Your task to perform on an android device: Clear the shopping cart on target.com. Search for "macbook pro" on target.com, select the first entry, and add it to the cart. Image 0: 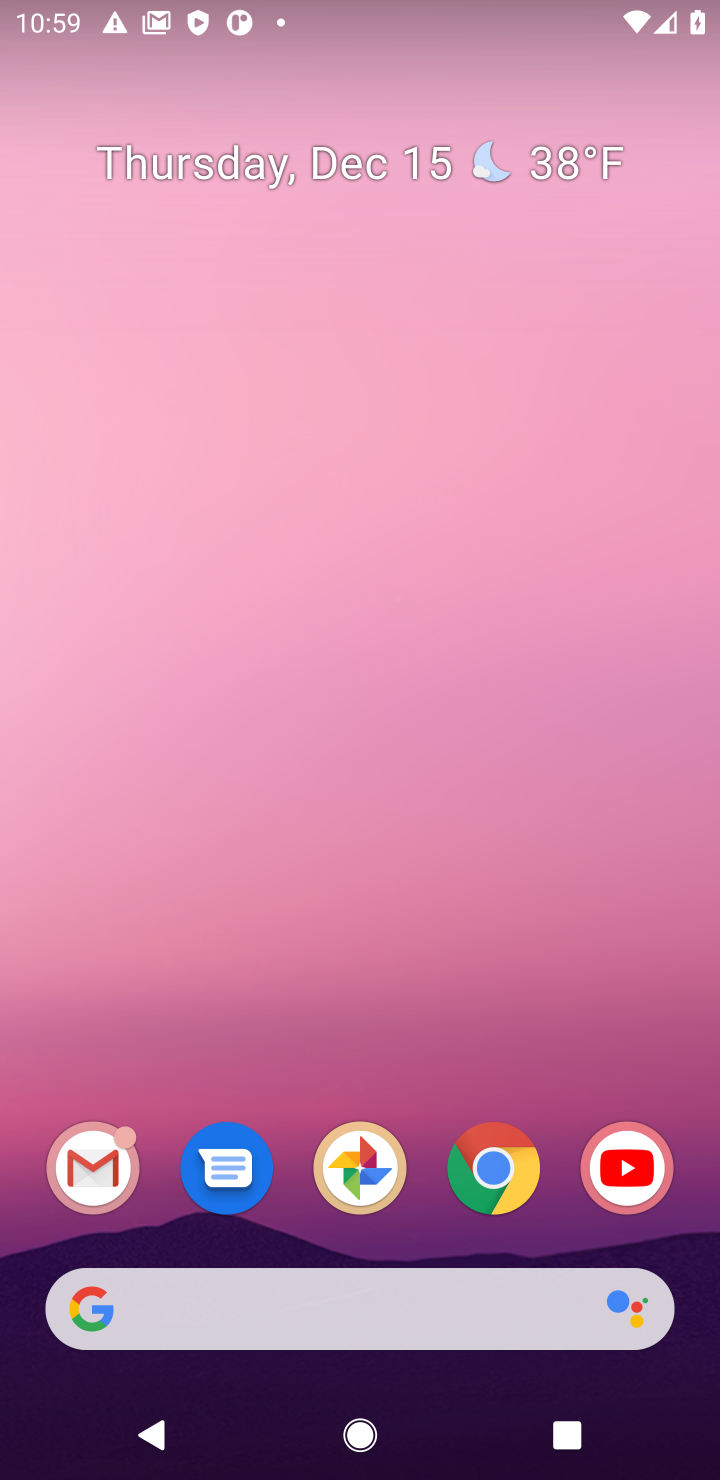
Step 0: click (500, 1189)
Your task to perform on an android device: Clear the shopping cart on target.com. Search for "macbook pro" on target.com, select the first entry, and add it to the cart. Image 1: 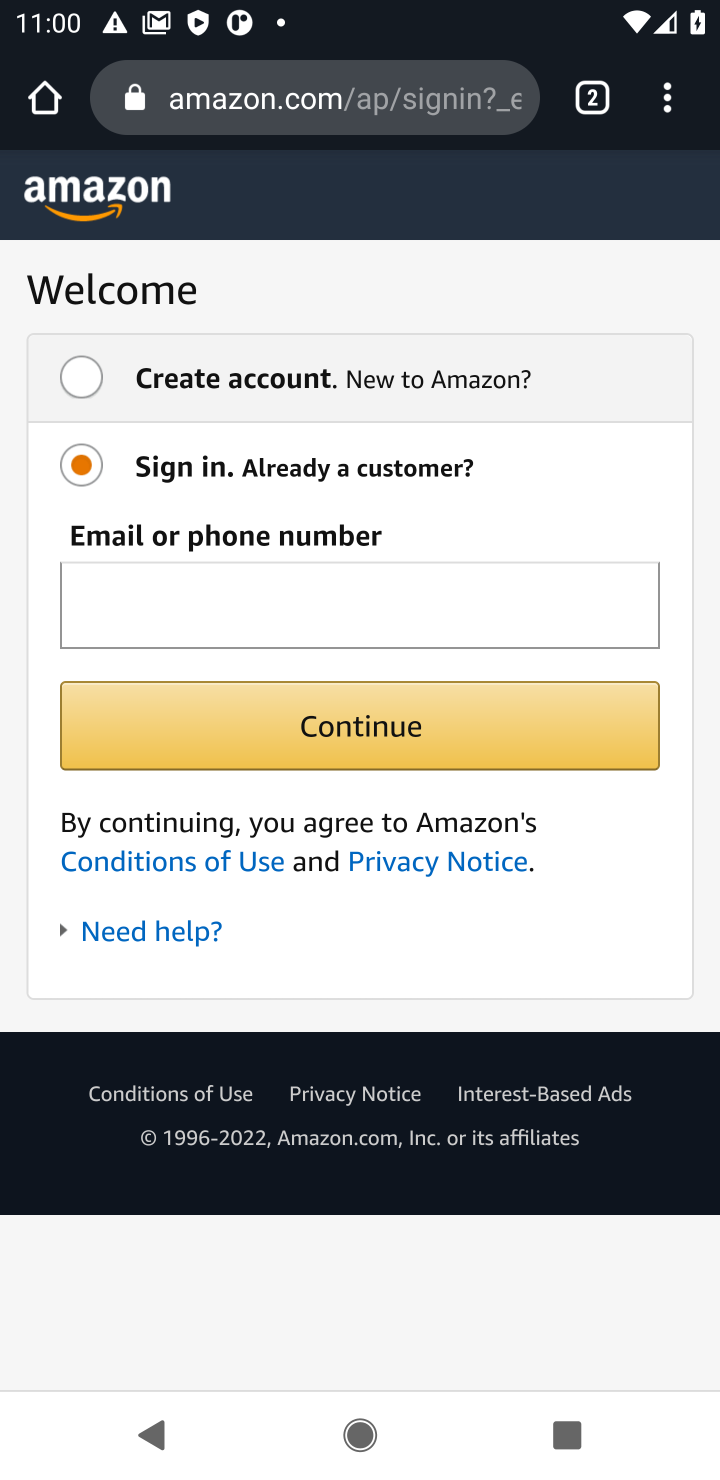
Step 1: click (322, 99)
Your task to perform on an android device: Clear the shopping cart on target.com. Search for "macbook pro" on target.com, select the first entry, and add it to the cart. Image 2: 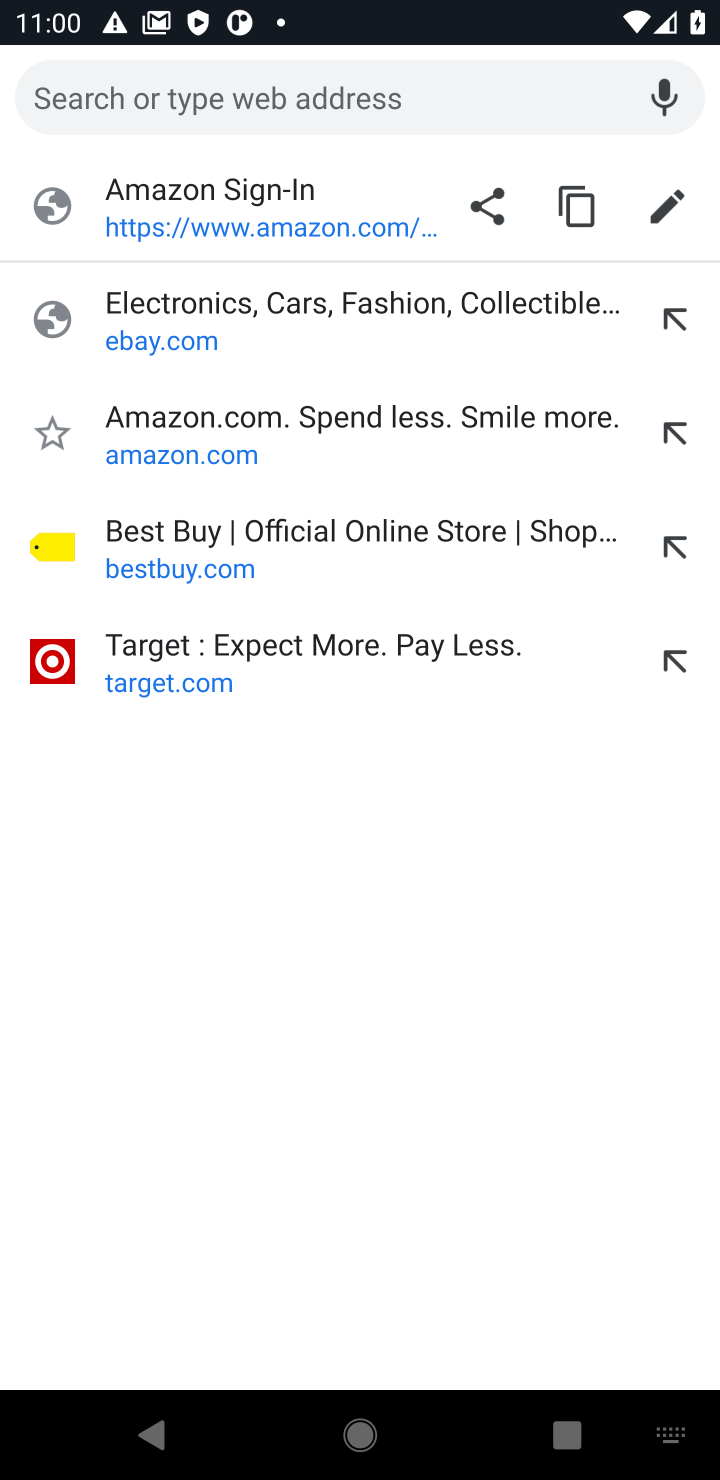
Step 2: click (394, 662)
Your task to perform on an android device: Clear the shopping cart on target.com. Search for "macbook pro" on target.com, select the first entry, and add it to the cart. Image 3: 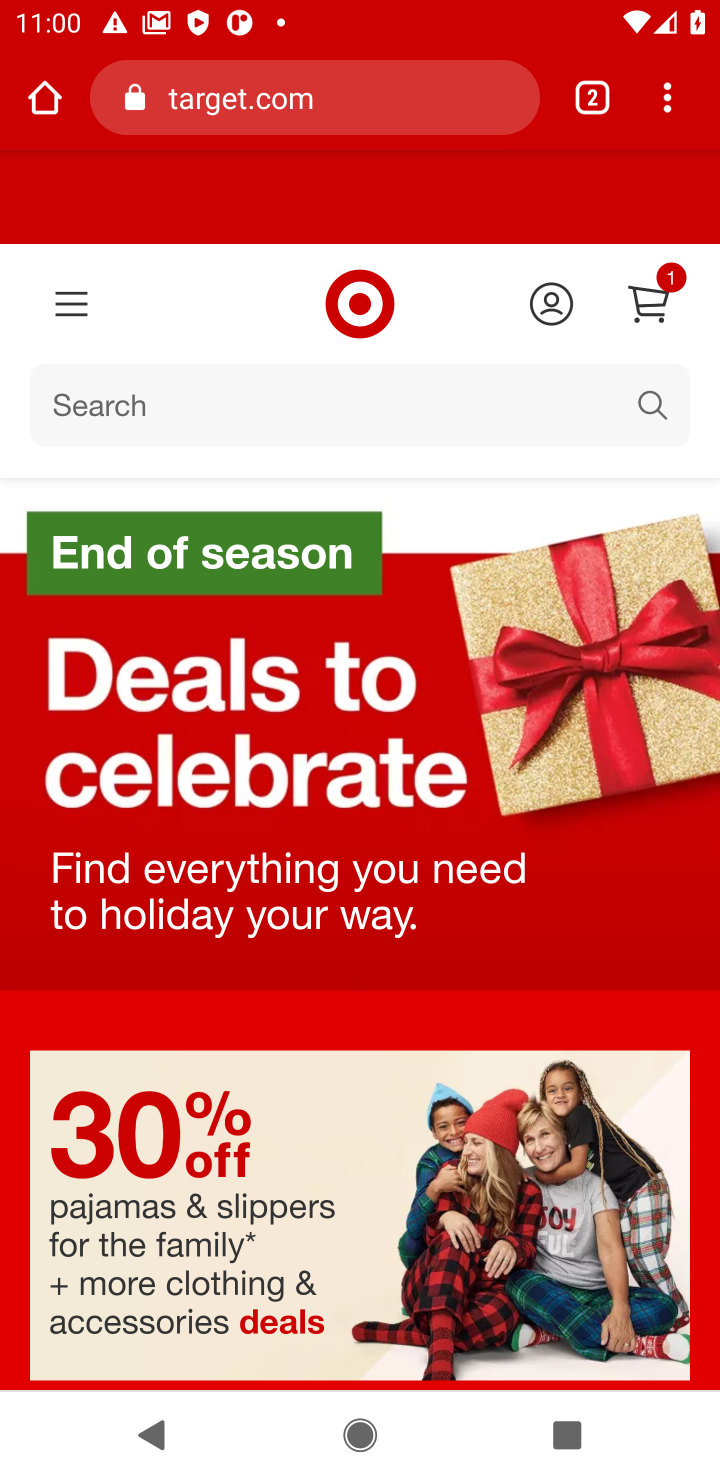
Step 3: click (346, 404)
Your task to perform on an android device: Clear the shopping cart on target.com. Search for "macbook pro" on target.com, select the first entry, and add it to the cart. Image 4: 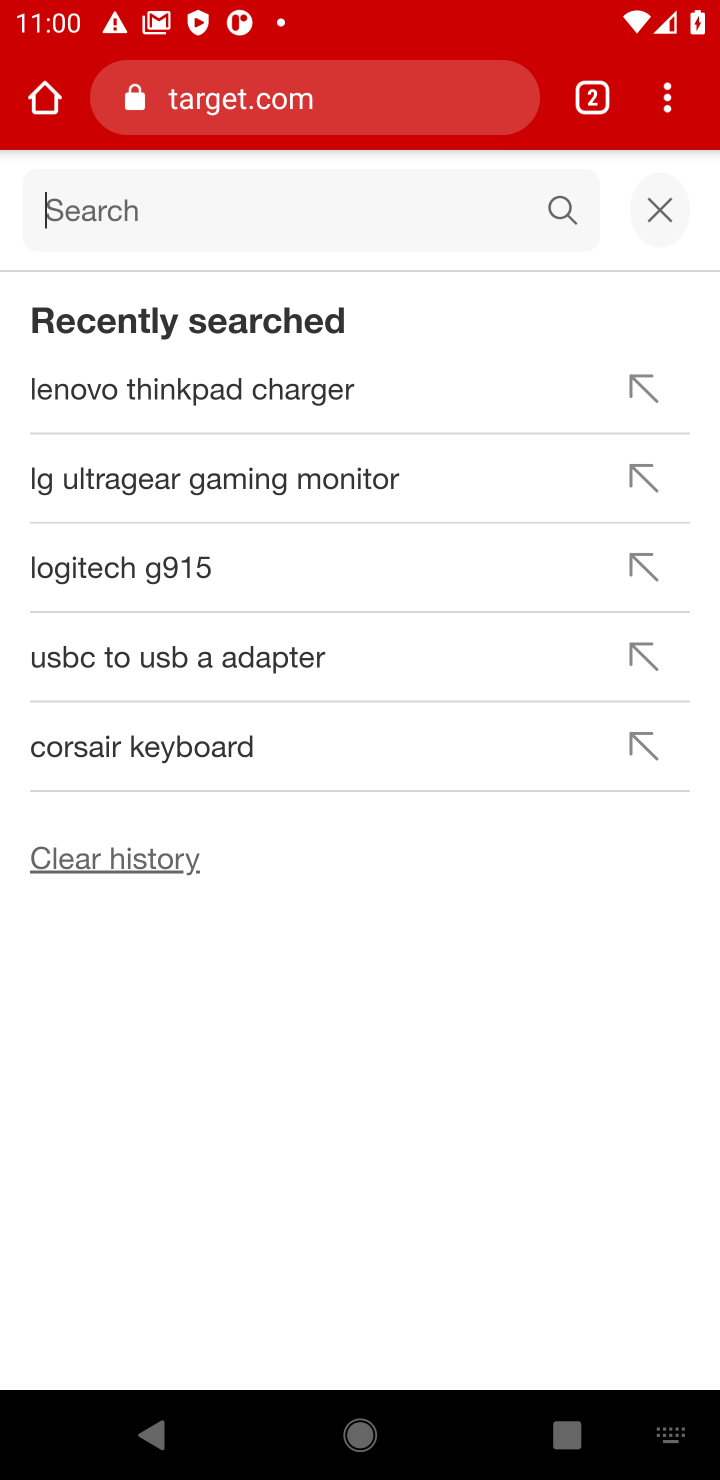
Step 4: click (320, 91)
Your task to perform on an android device: Clear the shopping cart on target.com. Search for "macbook pro" on target.com, select the first entry, and add it to the cart. Image 5: 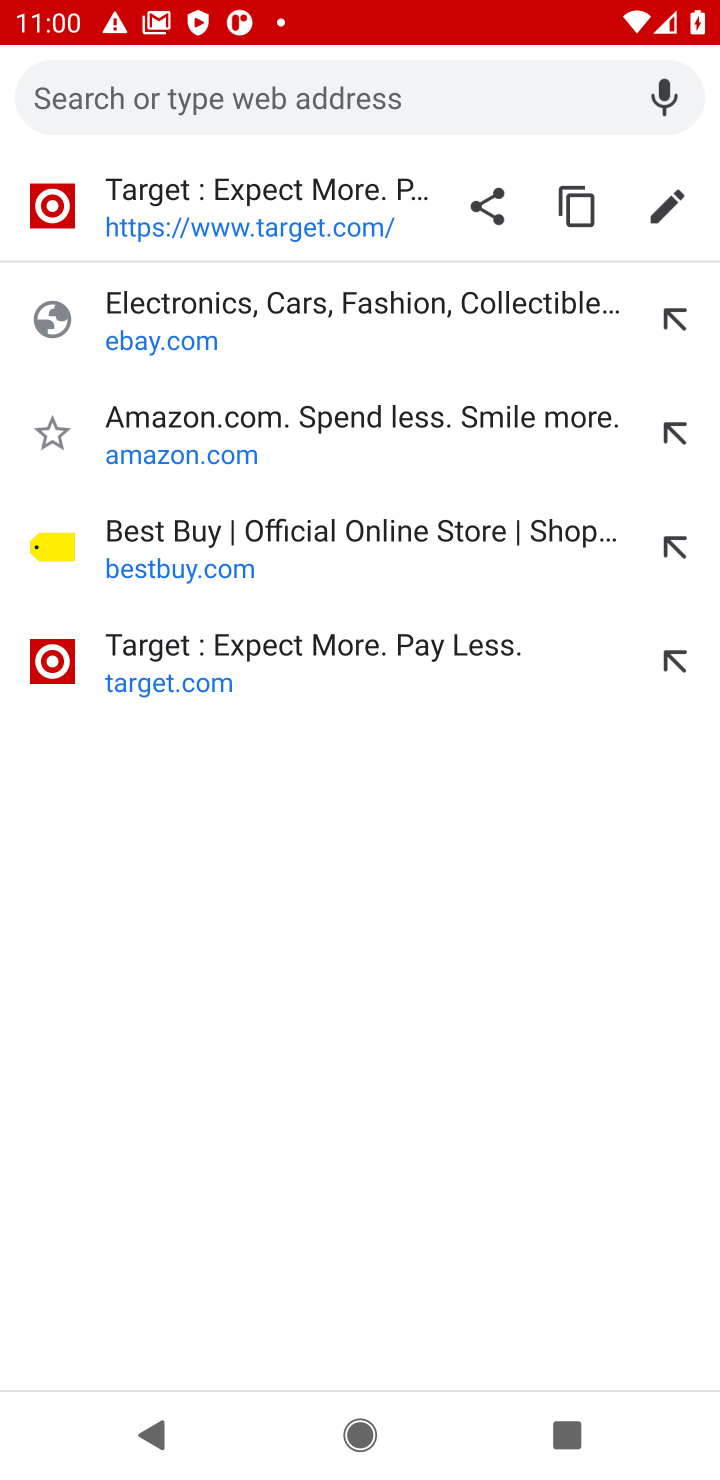
Step 5: click (267, 194)
Your task to perform on an android device: Clear the shopping cart on target.com. Search for "macbook pro" on target.com, select the first entry, and add it to the cart. Image 6: 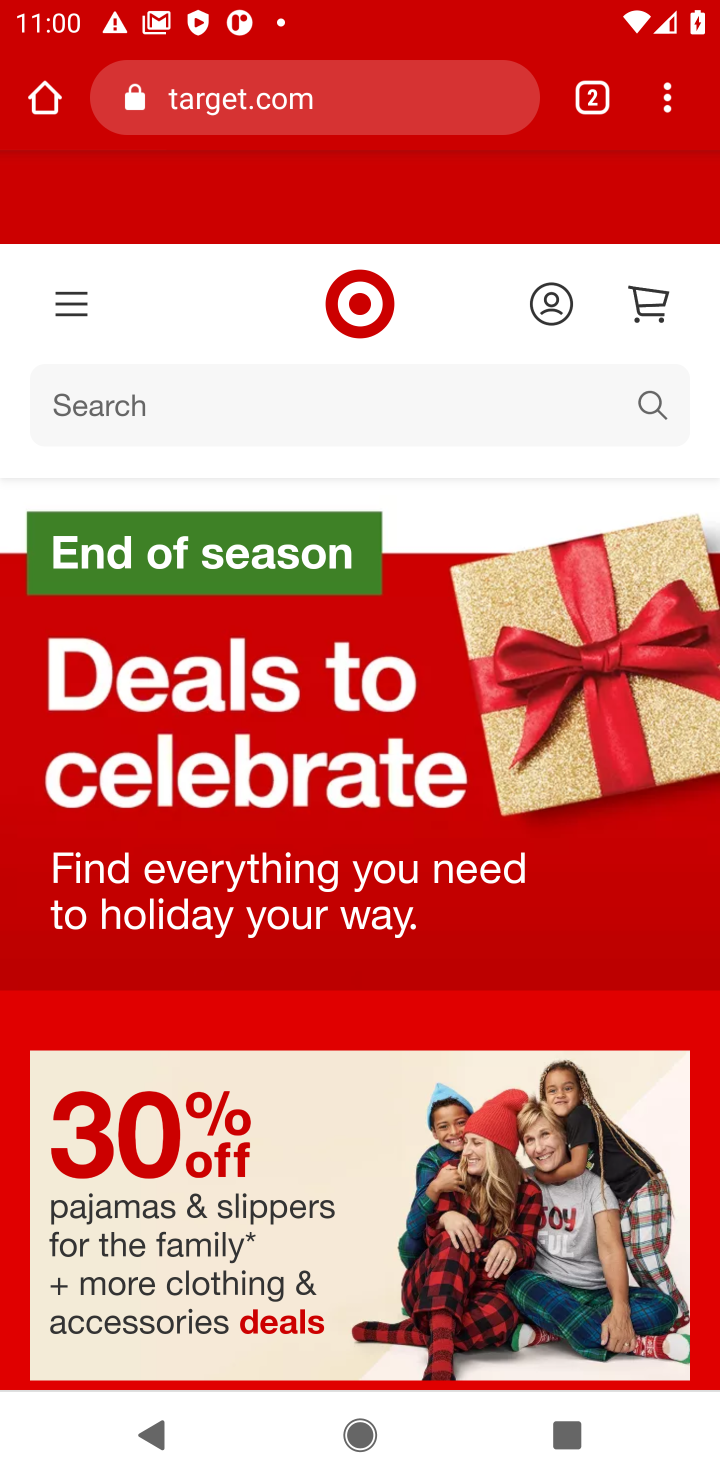
Step 6: click (654, 297)
Your task to perform on an android device: Clear the shopping cart on target.com. Search for "macbook pro" on target.com, select the first entry, and add it to the cart. Image 7: 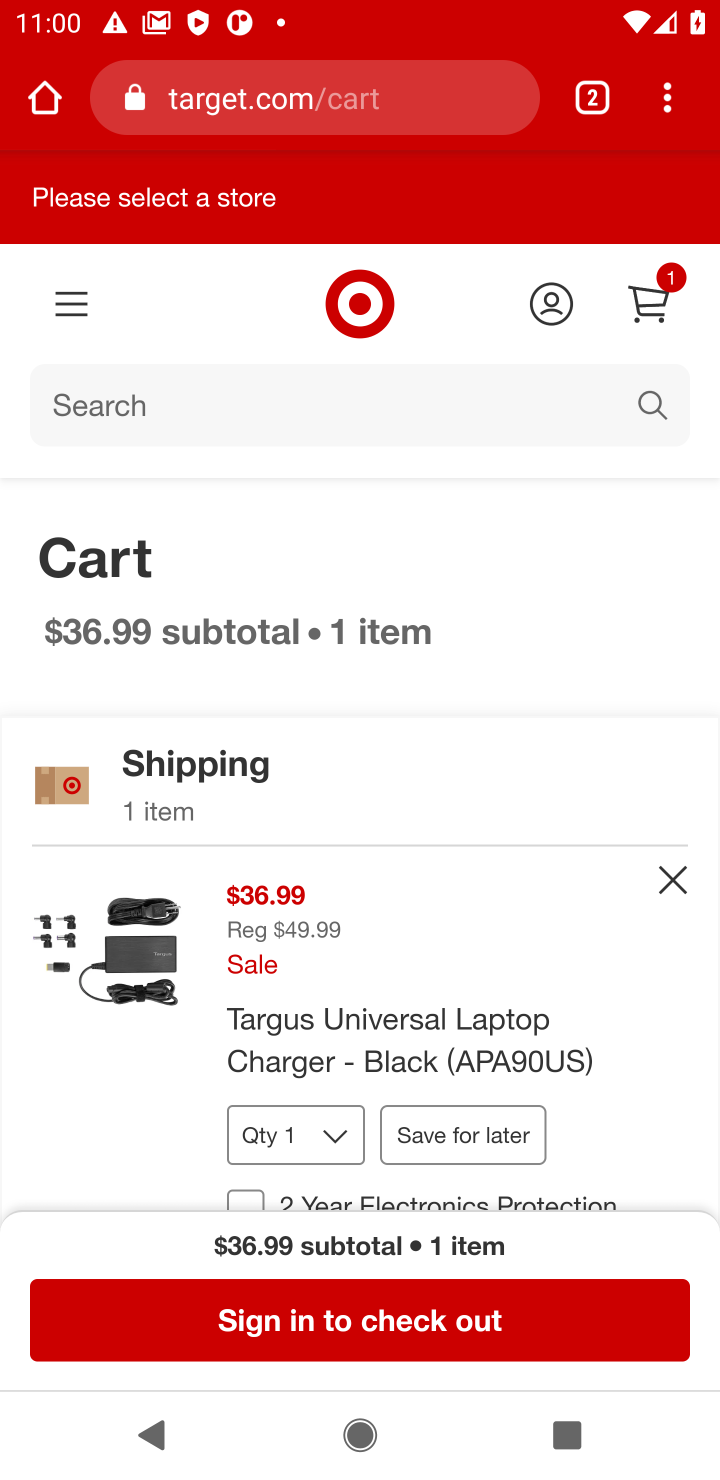
Step 7: click (672, 882)
Your task to perform on an android device: Clear the shopping cart on target.com. Search for "macbook pro" on target.com, select the first entry, and add it to the cart. Image 8: 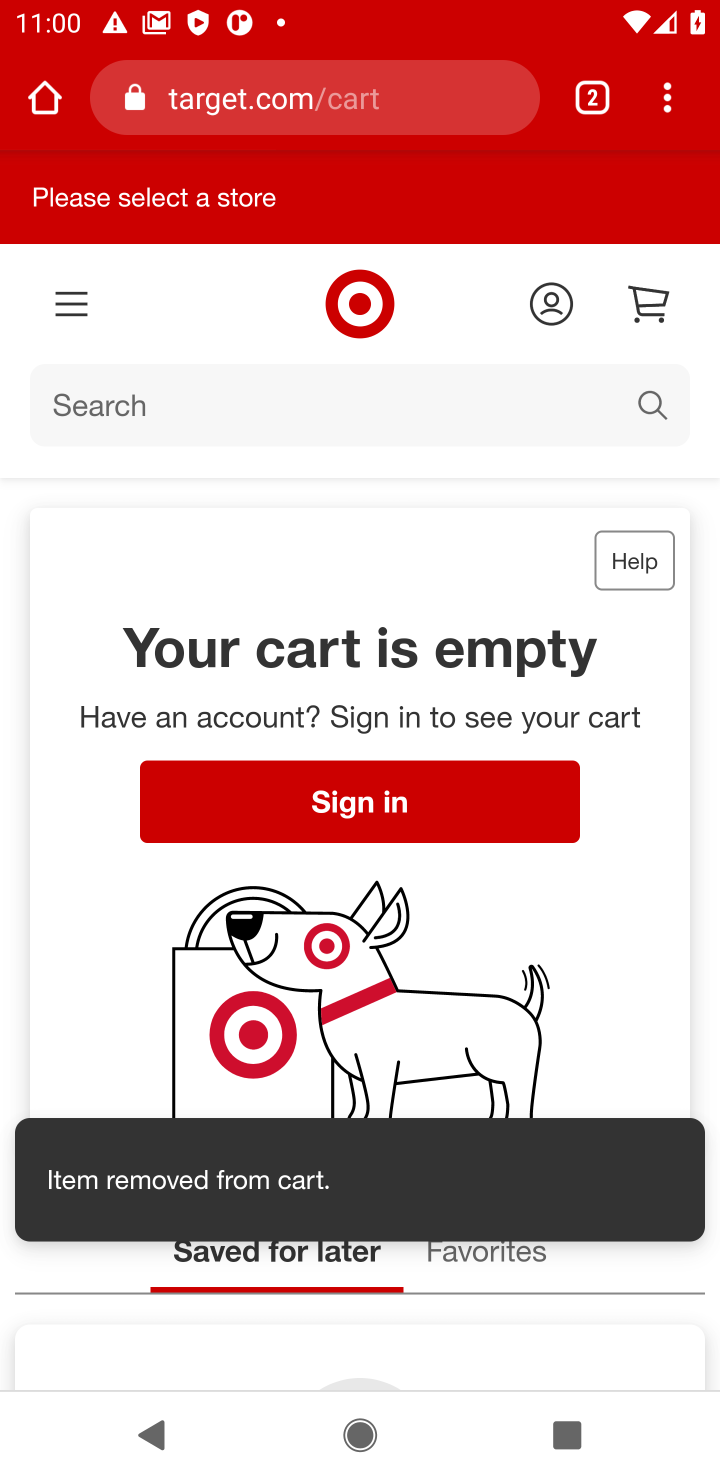
Step 8: click (433, 395)
Your task to perform on an android device: Clear the shopping cart on target.com. Search for "macbook pro" on target.com, select the first entry, and add it to the cart. Image 9: 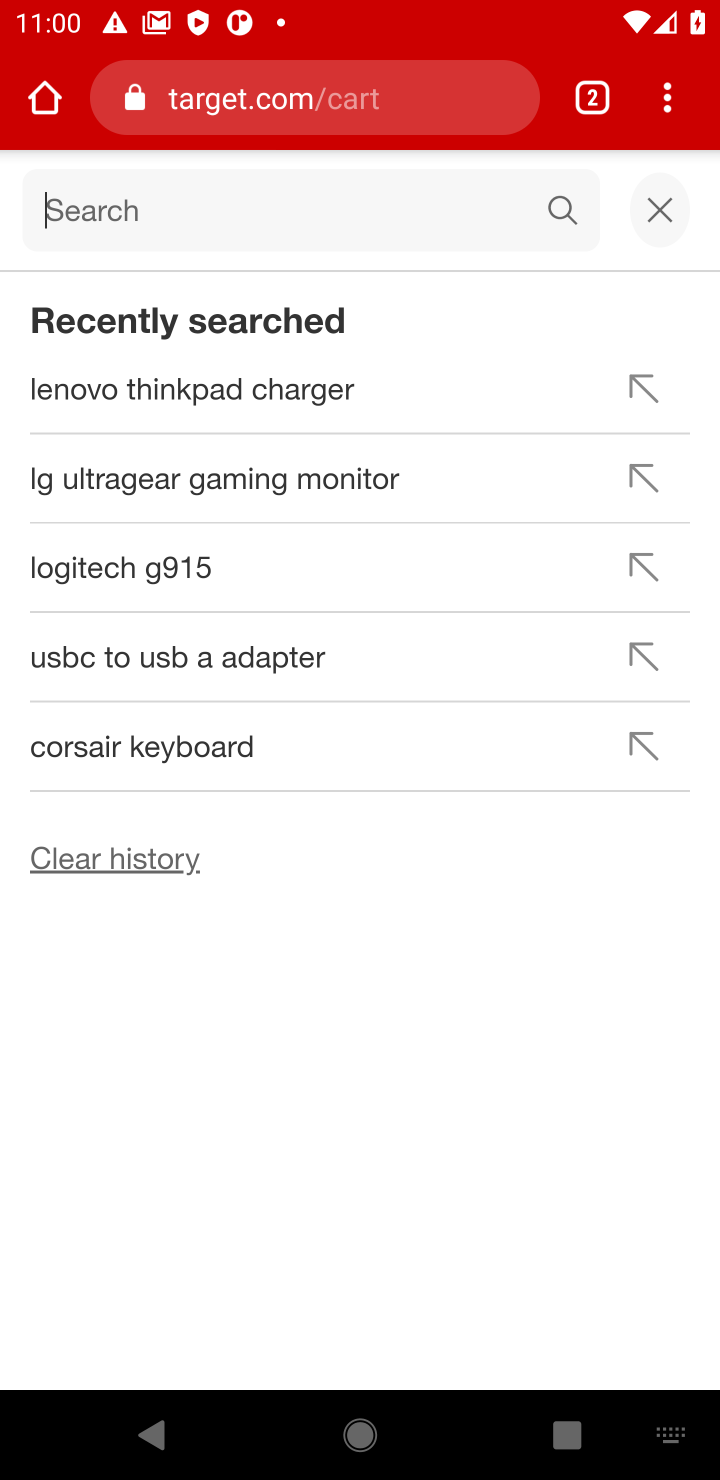
Step 9: type "macbook pro"
Your task to perform on an android device: Clear the shopping cart on target.com. Search for "macbook pro" on target.com, select the first entry, and add it to the cart. Image 10: 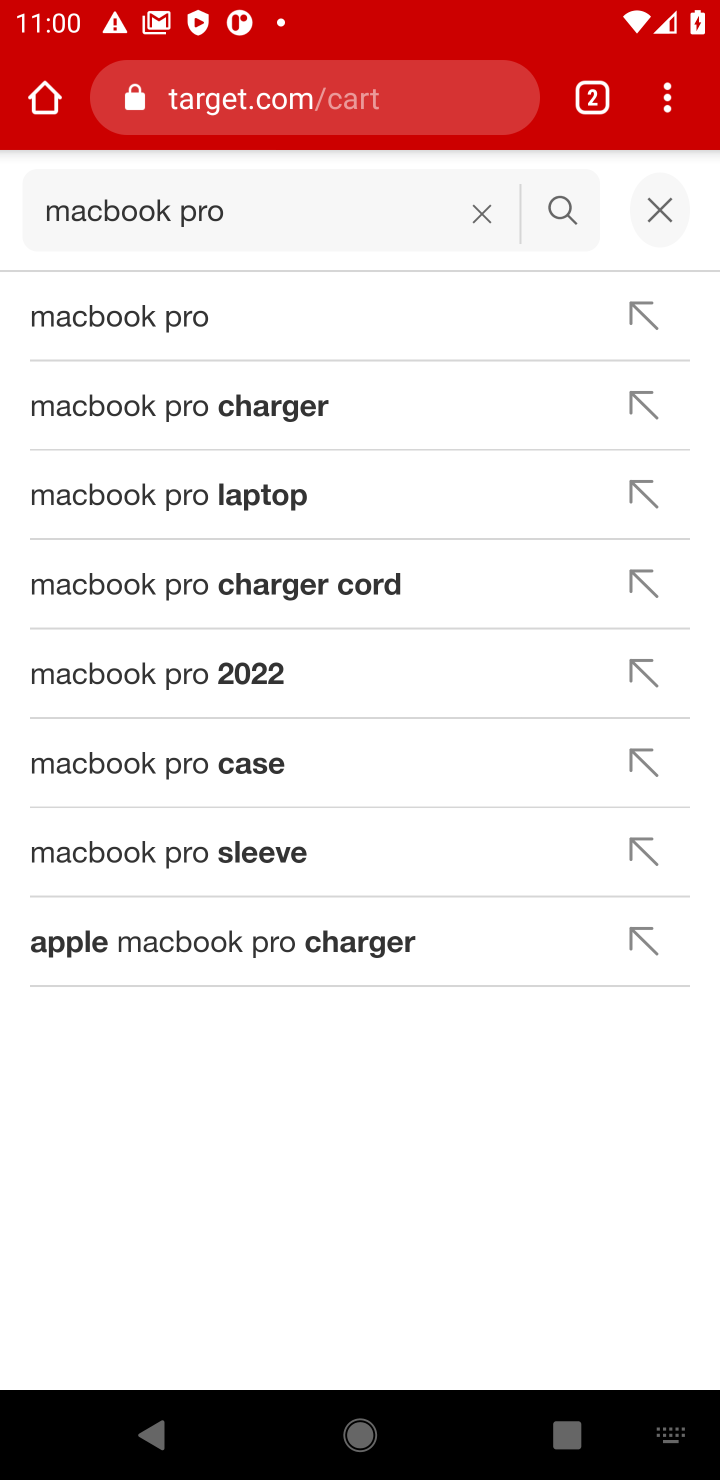
Step 10: click (174, 322)
Your task to perform on an android device: Clear the shopping cart on target.com. Search for "macbook pro" on target.com, select the first entry, and add it to the cart. Image 11: 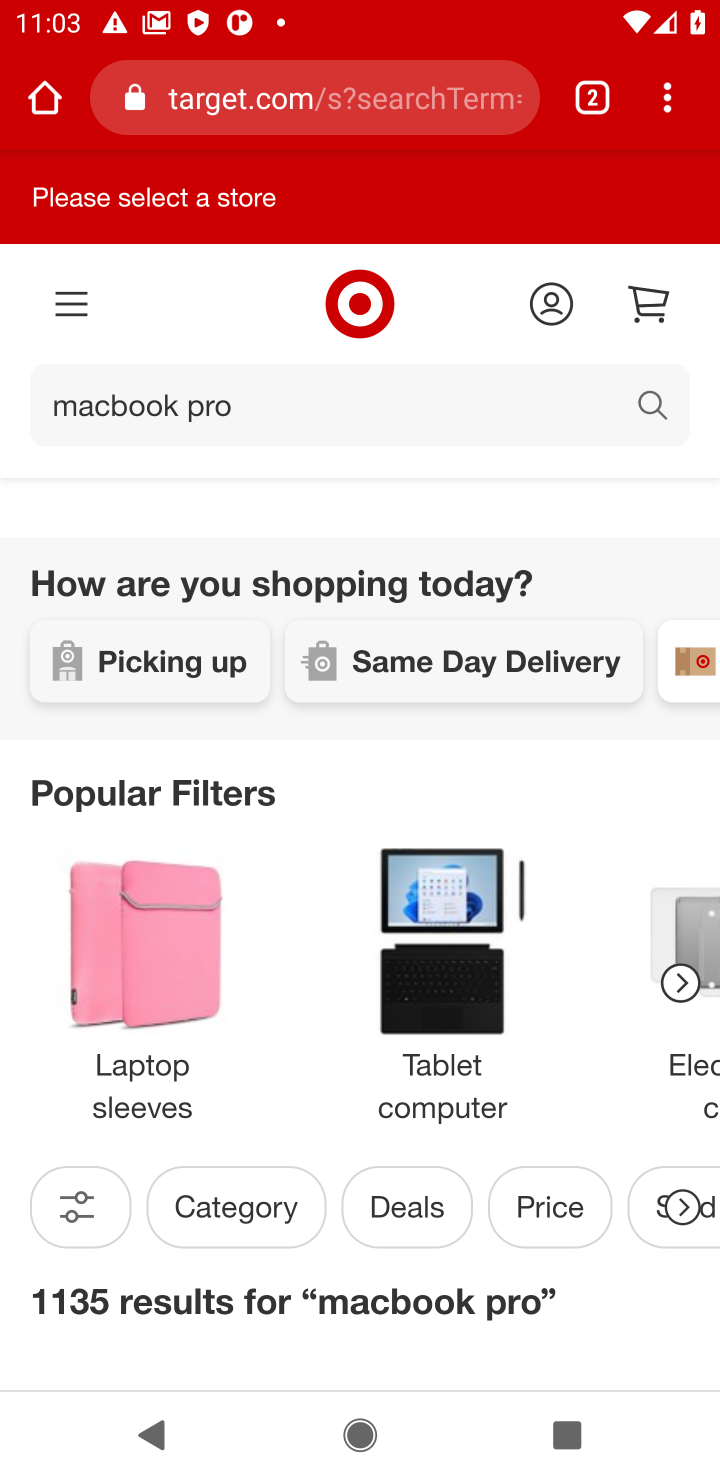
Step 11: drag from (376, 1312) to (406, 188)
Your task to perform on an android device: Clear the shopping cart on target.com. Search for "macbook pro" on target.com, select the first entry, and add it to the cart. Image 12: 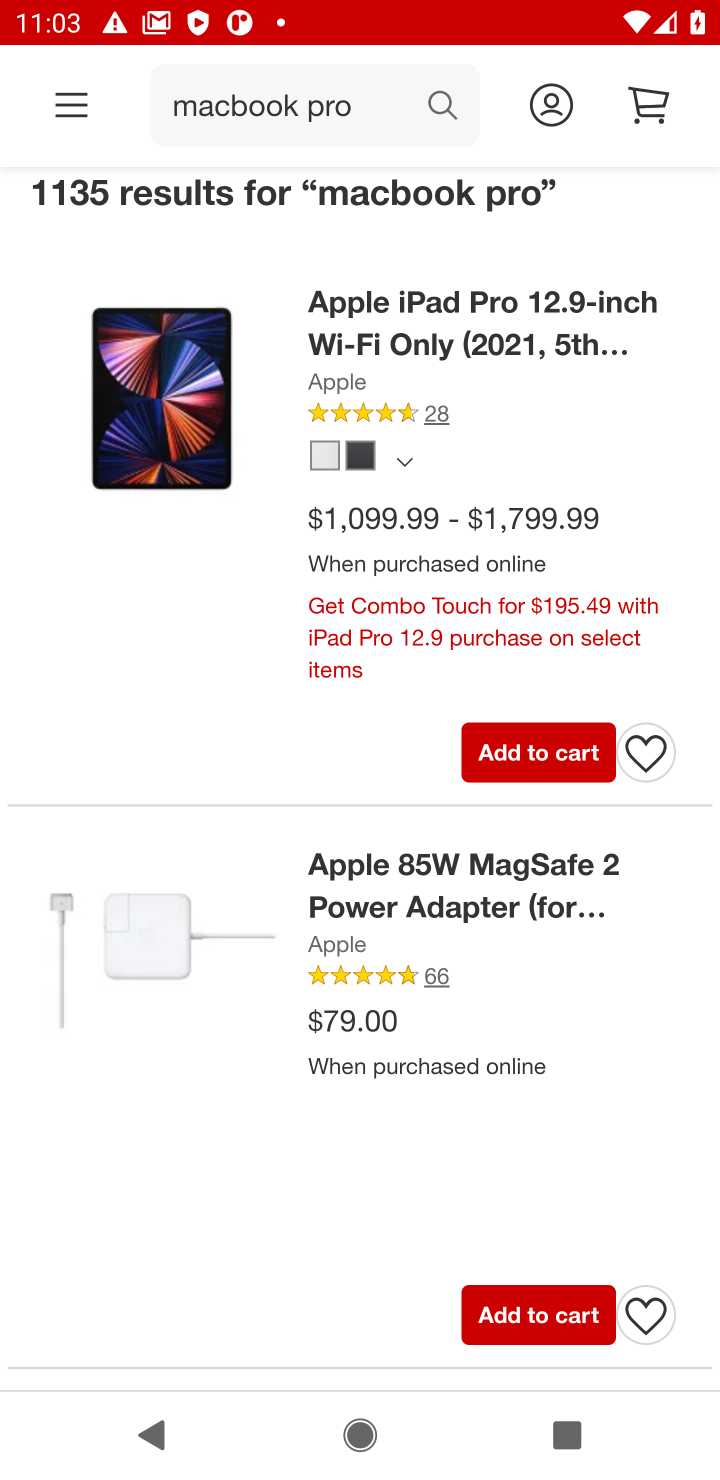
Step 12: click (554, 766)
Your task to perform on an android device: Clear the shopping cart on target.com. Search for "macbook pro" on target.com, select the first entry, and add it to the cart. Image 13: 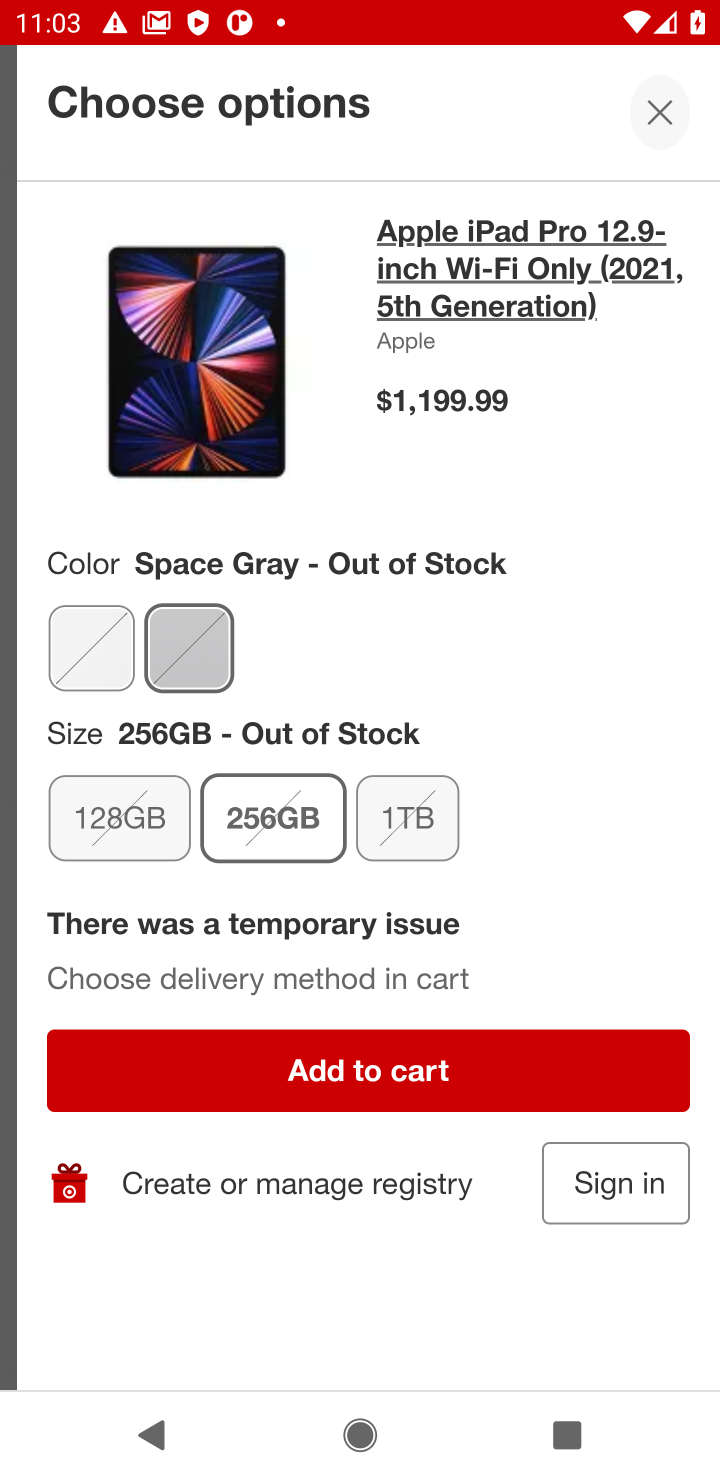
Step 13: task complete